Your task to perform on an android device: Open the Play Movies app and select the watchlist tab. Image 0: 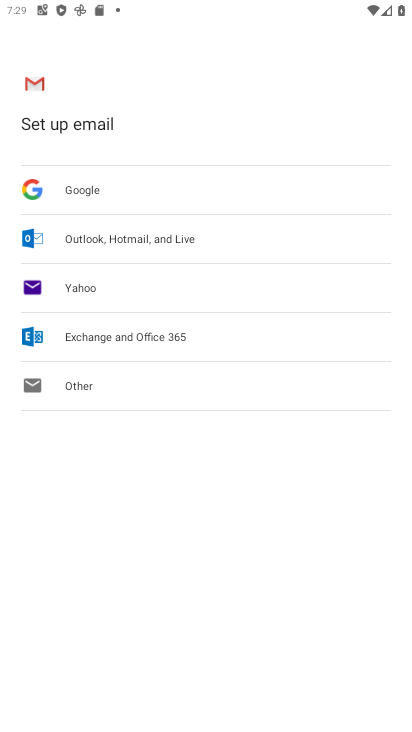
Step 0: press home button
Your task to perform on an android device: Open the Play Movies app and select the watchlist tab. Image 1: 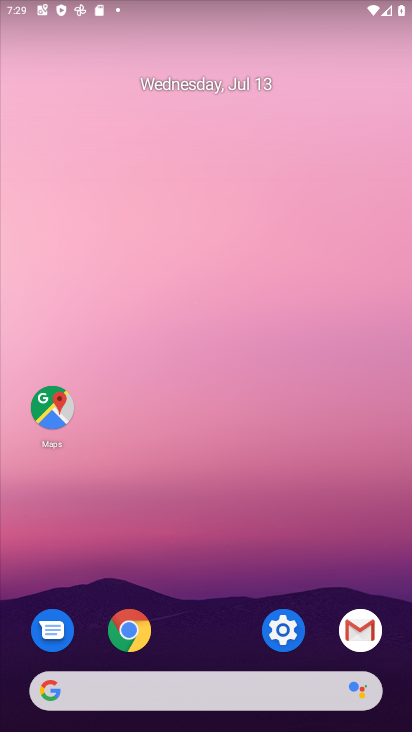
Step 1: drag from (258, 714) to (277, 306)
Your task to perform on an android device: Open the Play Movies app and select the watchlist tab. Image 2: 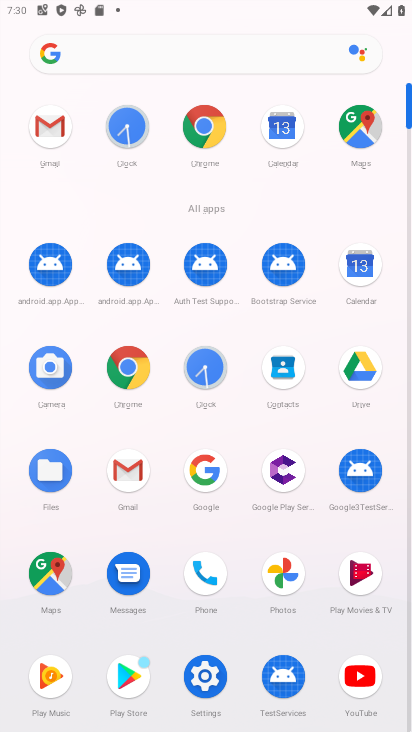
Step 2: click (352, 579)
Your task to perform on an android device: Open the Play Movies app and select the watchlist tab. Image 3: 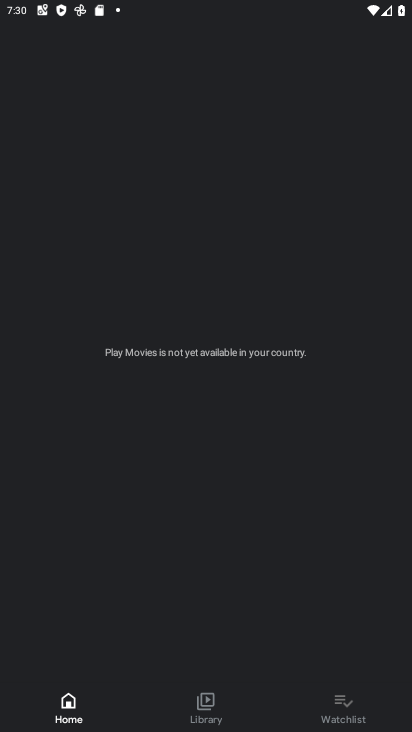
Step 3: click (329, 708)
Your task to perform on an android device: Open the Play Movies app and select the watchlist tab. Image 4: 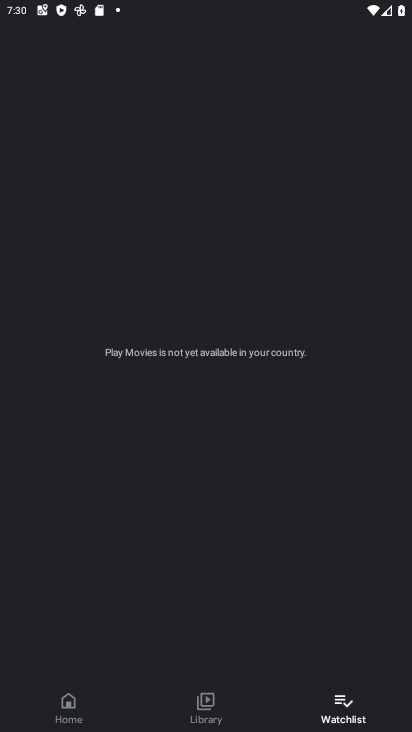
Step 4: task complete